Your task to perform on an android device: change keyboard looks Image 0: 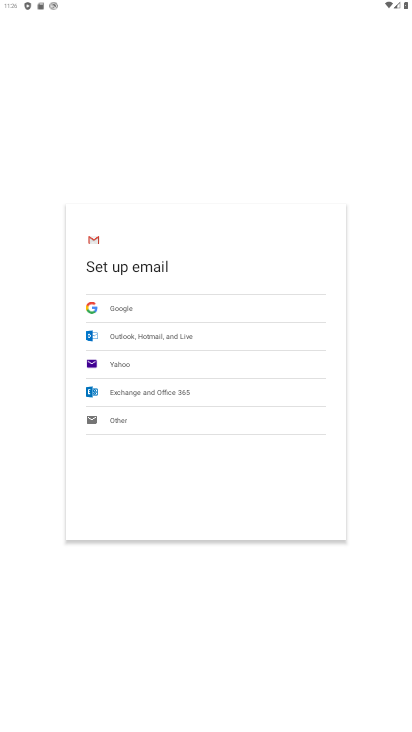
Step 0: press home button
Your task to perform on an android device: change keyboard looks Image 1: 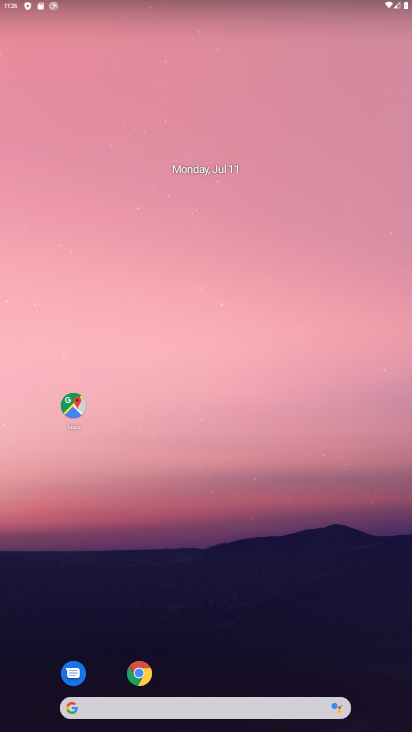
Step 1: drag from (220, 666) to (205, 62)
Your task to perform on an android device: change keyboard looks Image 2: 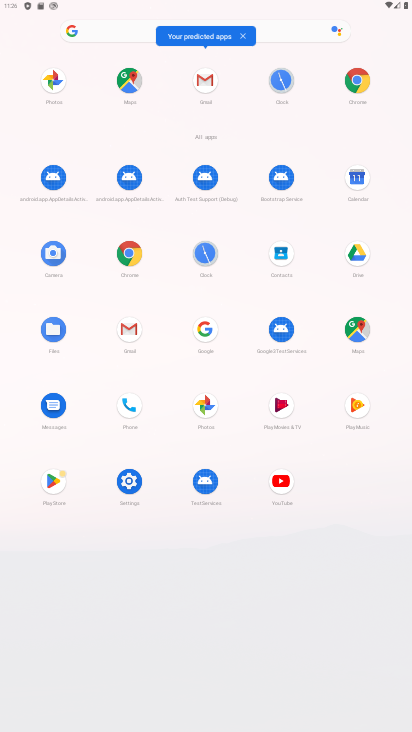
Step 2: click (126, 474)
Your task to perform on an android device: change keyboard looks Image 3: 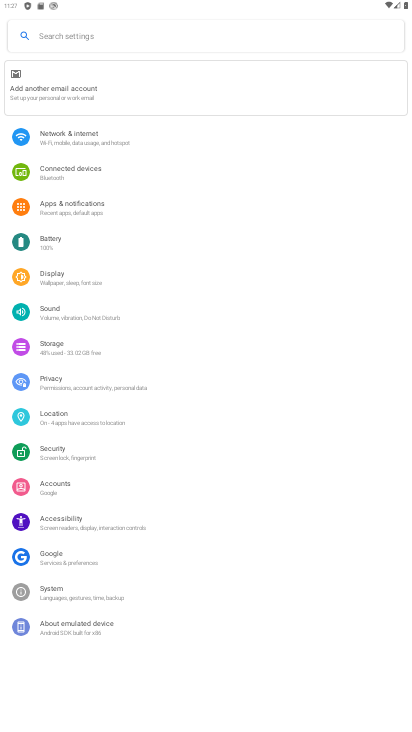
Step 3: click (86, 589)
Your task to perform on an android device: change keyboard looks Image 4: 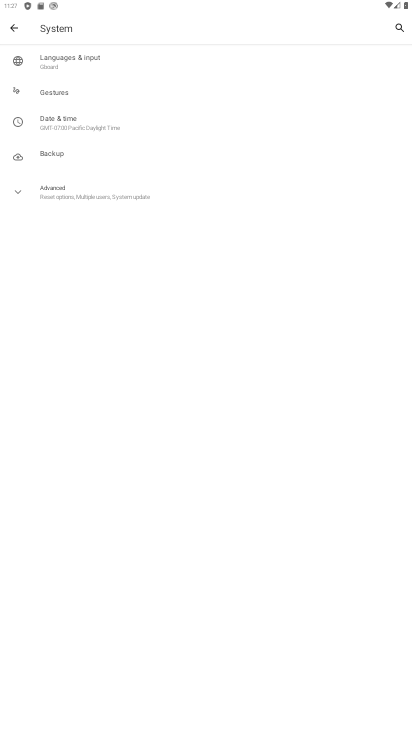
Step 4: click (102, 54)
Your task to perform on an android device: change keyboard looks Image 5: 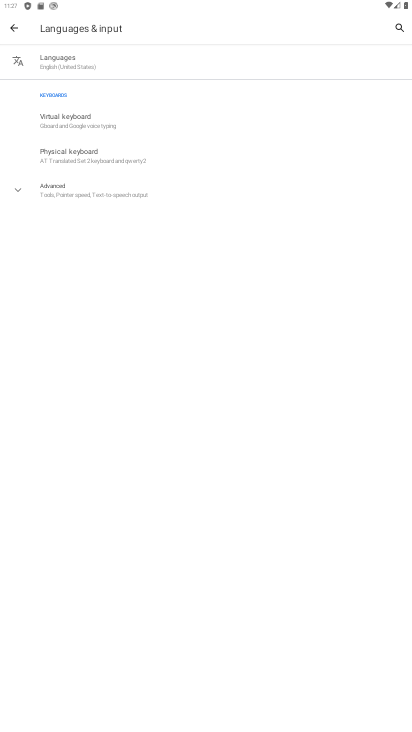
Step 5: click (96, 121)
Your task to perform on an android device: change keyboard looks Image 6: 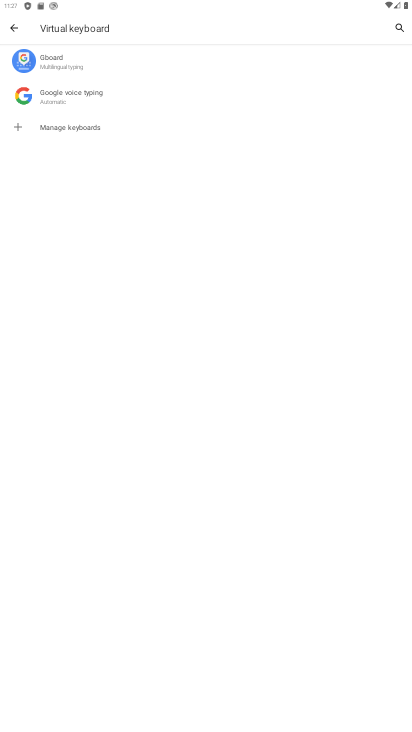
Step 6: click (70, 68)
Your task to perform on an android device: change keyboard looks Image 7: 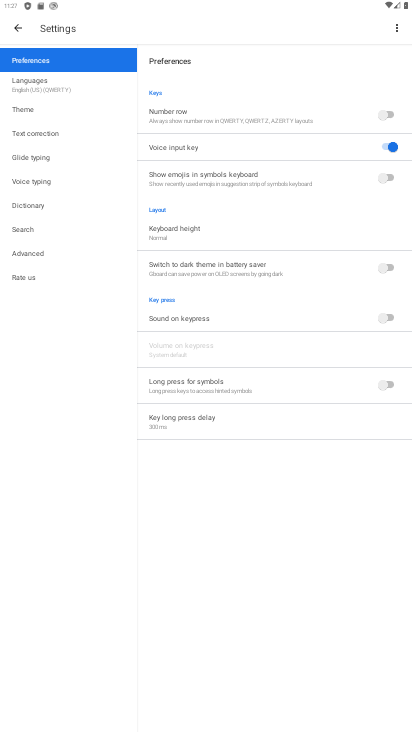
Step 7: click (31, 108)
Your task to perform on an android device: change keyboard looks Image 8: 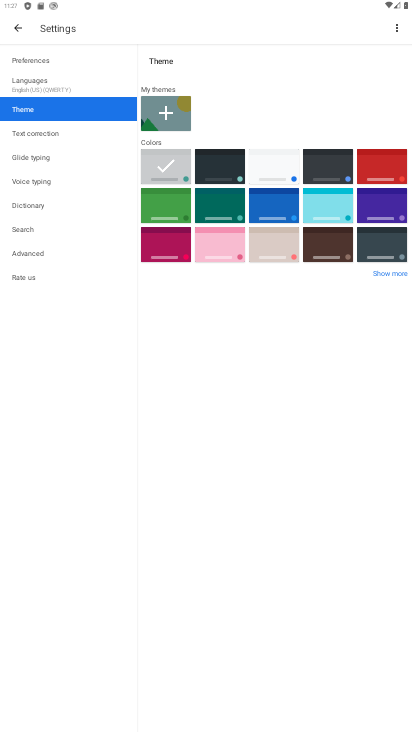
Step 8: click (262, 207)
Your task to perform on an android device: change keyboard looks Image 9: 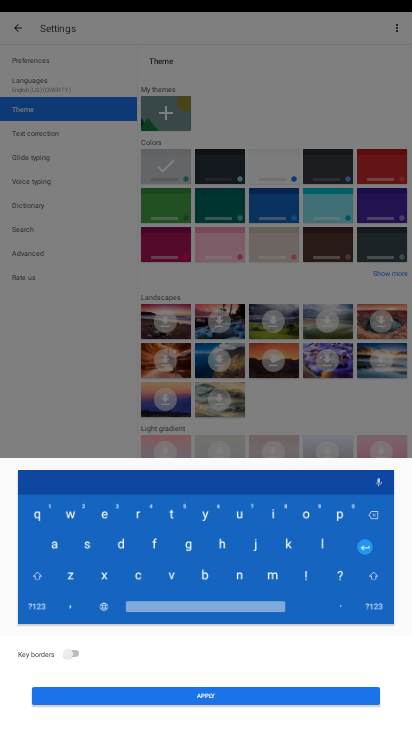
Step 9: click (197, 699)
Your task to perform on an android device: change keyboard looks Image 10: 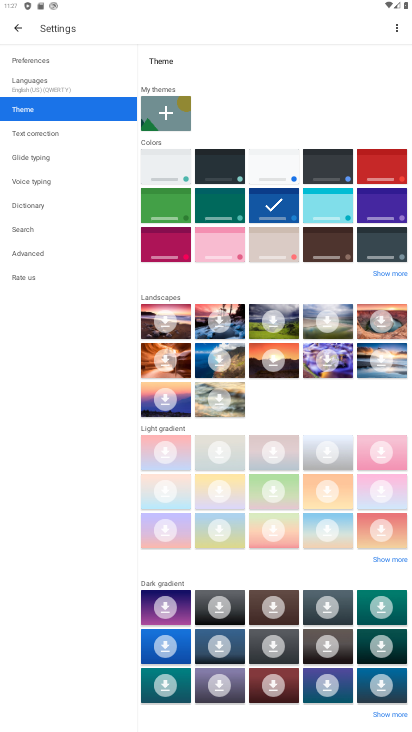
Step 10: task complete